Your task to perform on an android device: turn off priority inbox in the gmail app Image 0: 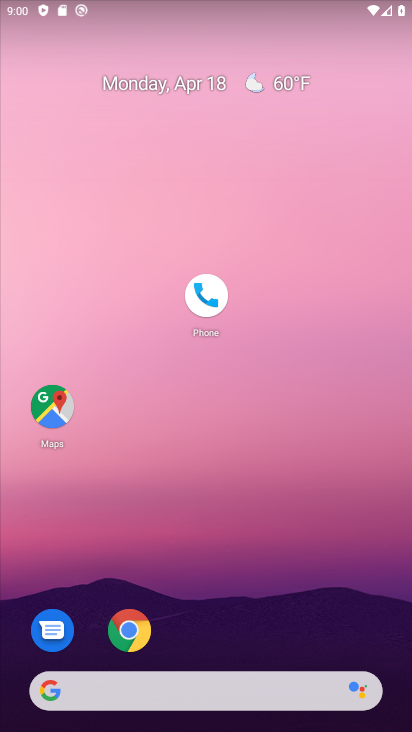
Step 0: drag from (327, 542) to (189, 44)
Your task to perform on an android device: turn off priority inbox in the gmail app Image 1: 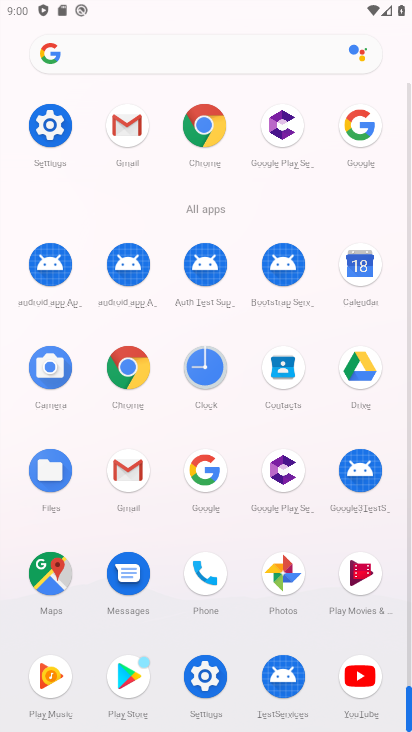
Step 1: click (123, 126)
Your task to perform on an android device: turn off priority inbox in the gmail app Image 2: 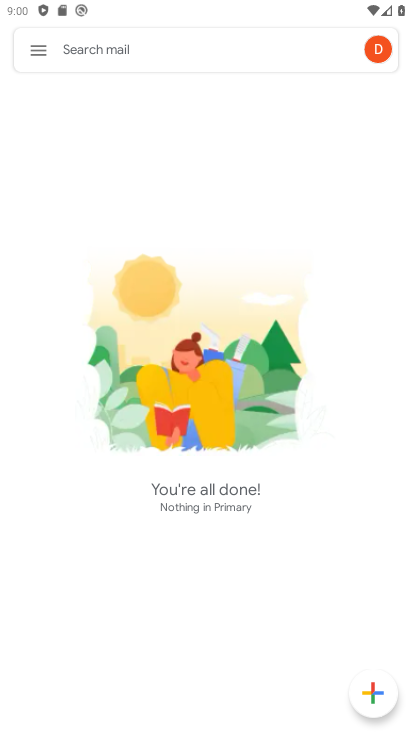
Step 2: click (42, 49)
Your task to perform on an android device: turn off priority inbox in the gmail app Image 3: 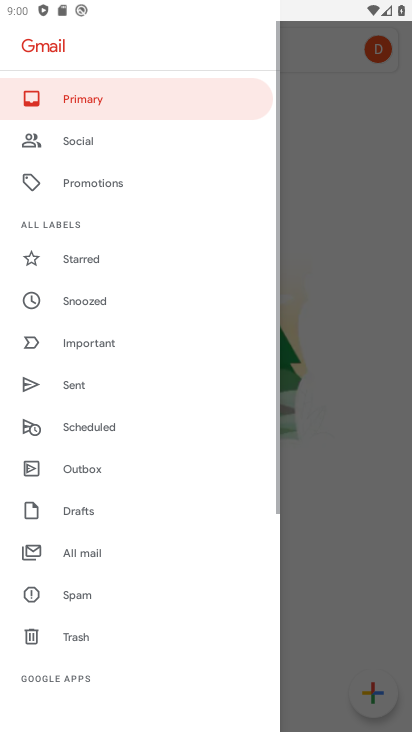
Step 3: drag from (162, 599) to (145, 110)
Your task to perform on an android device: turn off priority inbox in the gmail app Image 4: 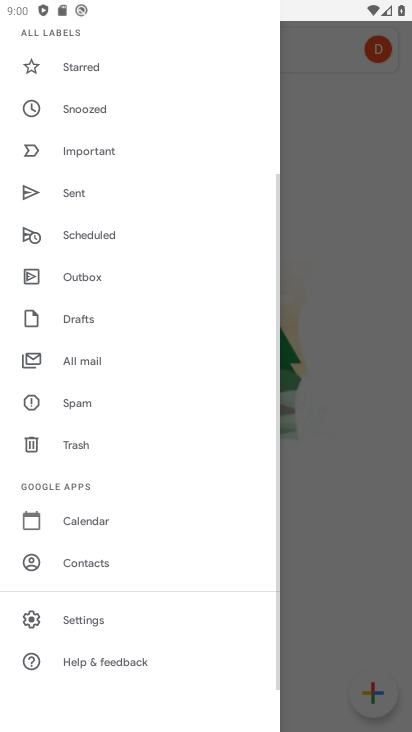
Step 4: click (93, 610)
Your task to perform on an android device: turn off priority inbox in the gmail app Image 5: 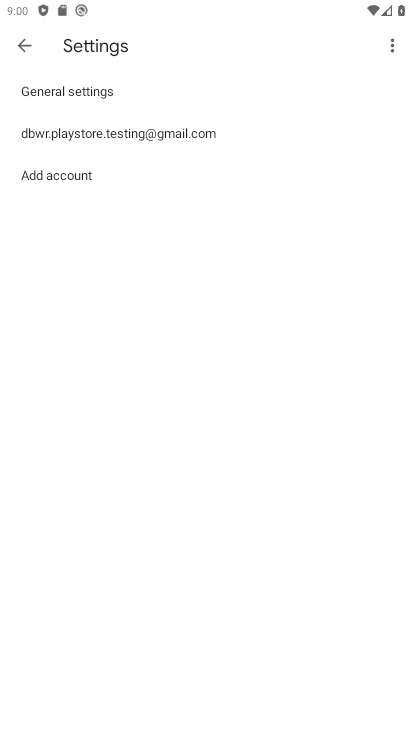
Step 5: click (173, 135)
Your task to perform on an android device: turn off priority inbox in the gmail app Image 6: 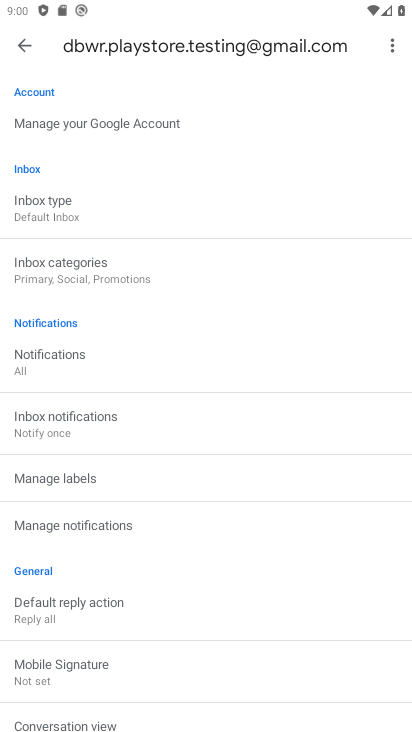
Step 6: drag from (196, 628) to (225, 284)
Your task to perform on an android device: turn off priority inbox in the gmail app Image 7: 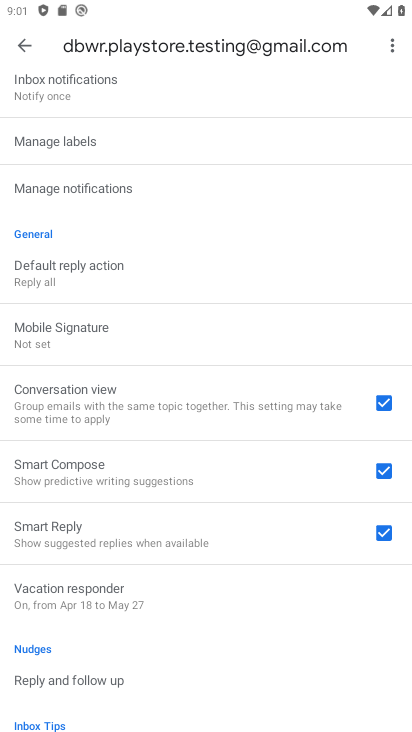
Step 7: drag from (189, 626) to (215, 149)
Your task to perform on an android device: turn off priority inbox in the gmail app Image 8: 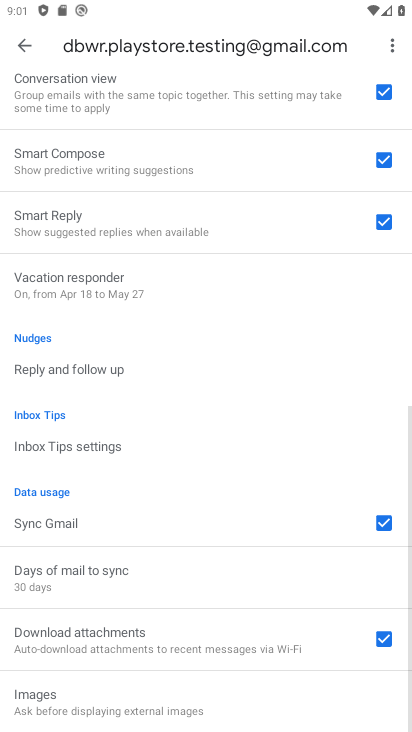
Step 8: drag from (214, 155) to (208, 578)
Your task to perform on an android device: turn off priority inbox in the gmail app Image 9: 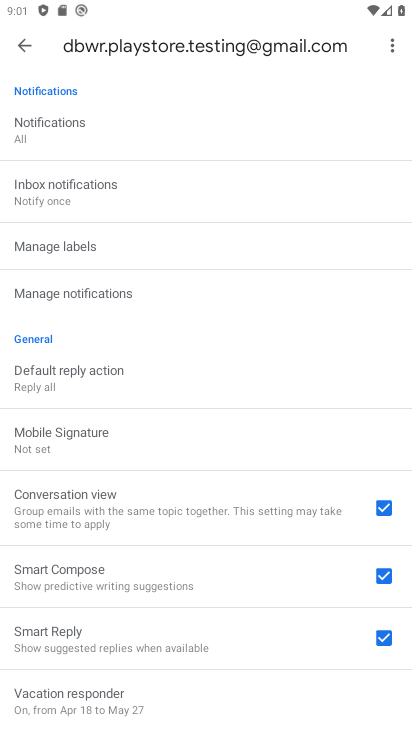
Step 9: drag from (234, 202) to (245, 568)
Your task to perform on an android device: turn off priority inbox in the gmail app Image 10: 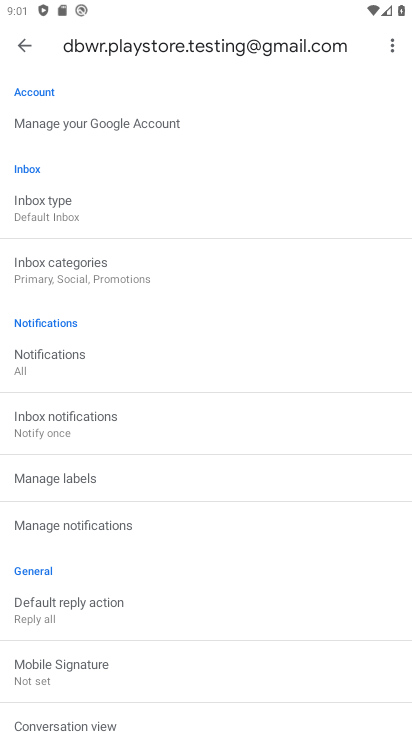
Step 10: click (69, 217)
Your task to perform on an android device: turn off priority inbox in the gmail app Image 11: 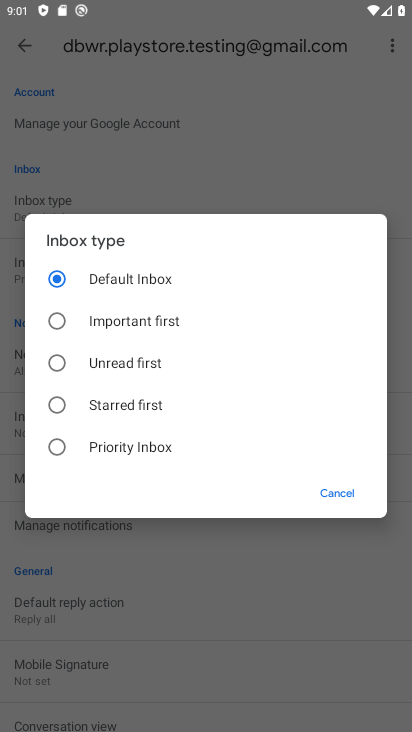
Step 11: task complete